Your task to perform on an android device: Go to Yahoo.com Image 0: 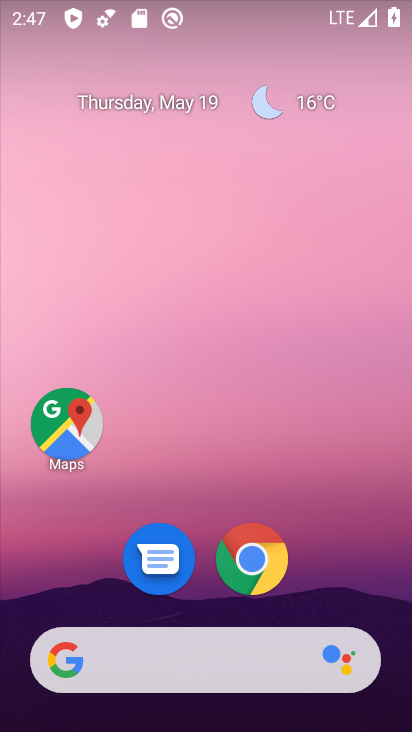
Step 0: click (236, 583)
Your task to perform on an android device: Go to Yahoo.com Image 1: 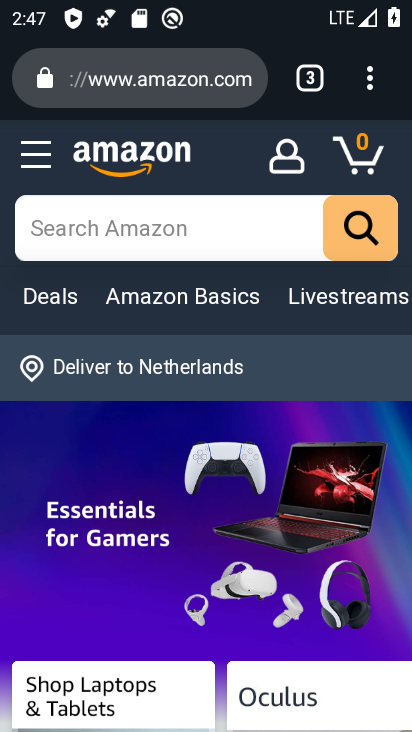
Step 1: click (302, 74)
Your task to perform on an android device: Go to Yahoo.com Image 2: 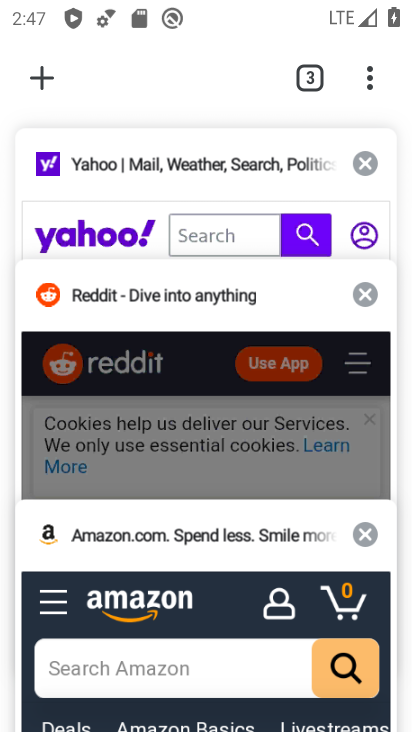
Step 2: click (216, 211)
Your task to perform on an android device: Go to Yahoo.com Image 3: 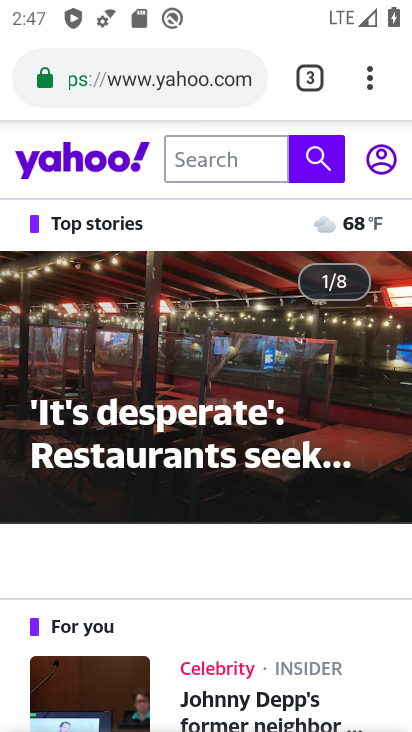
Step 3: task complete